Your task to perform on an android device: Open CNN.com Image 0: 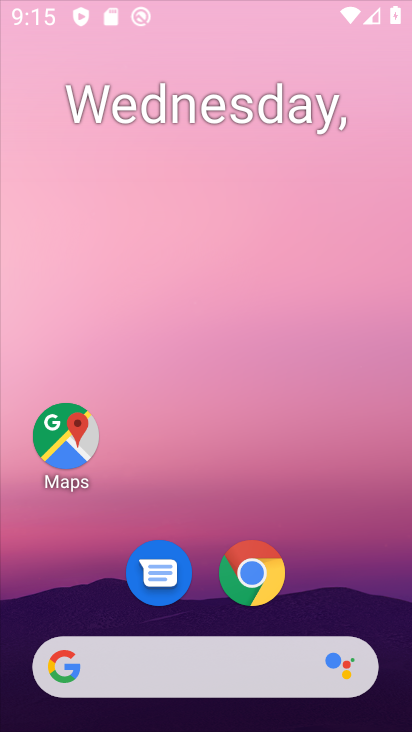
Step 0: click (292, 331)
Your task to perform on an android device: Open CNN.com Image 1: 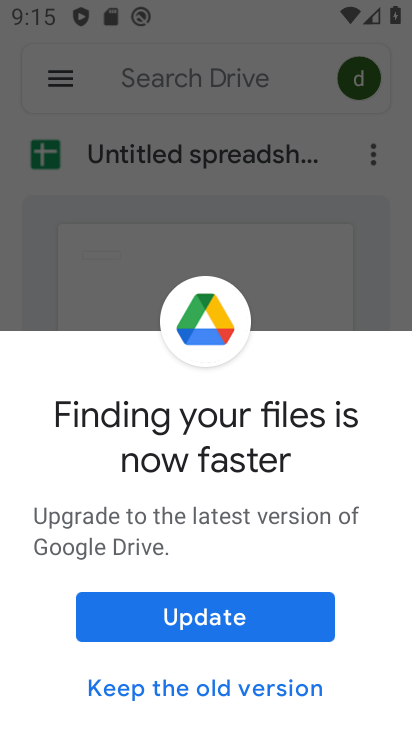
Step 1: press home button
Your task to perform on an android device: Open CNN.com Image 2: 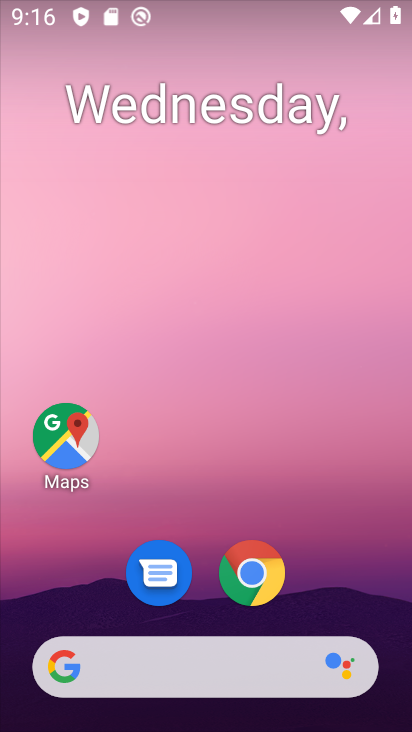
Step 2: click (251, 553)
Your task to perform on an android device: Open CNN.com Image 3: 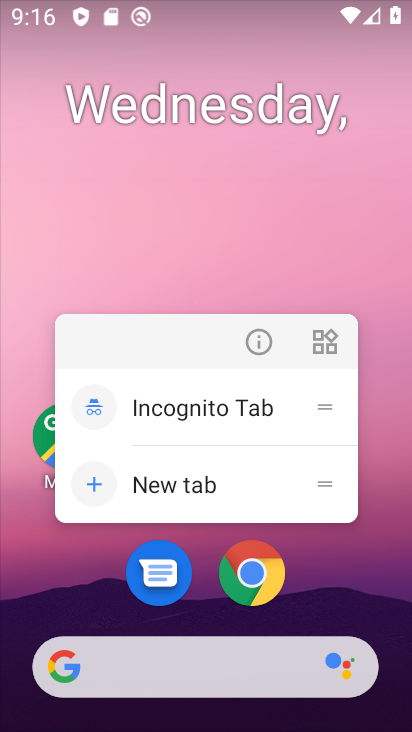
Step 3: click (257, 561)
Your task to perform on an android device: Open CNN.com Image 4: 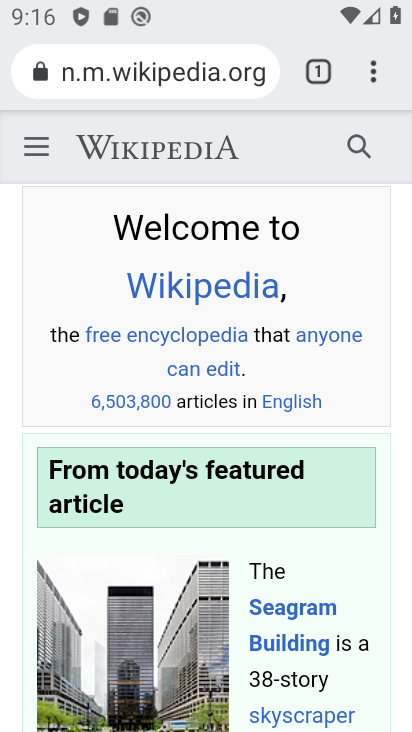
Step 4: click (370, 66)
Your task to perform on an android device: Open CNN.com Image 5: 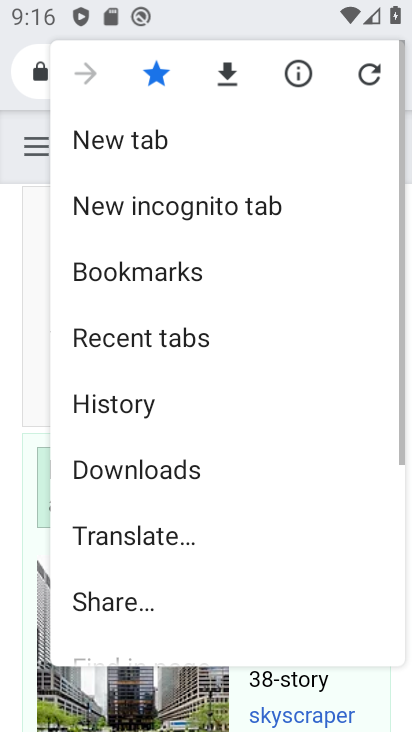
Step 5: click (139, 137)
Your task to perform on an android device: Open CNN.com Image 6: 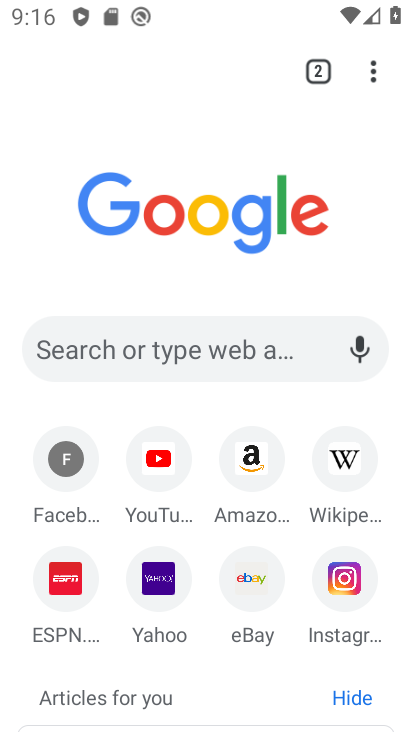
Step 6: click (226, 343)
Your task to perform on an android device: Open CNN.com Image 7: 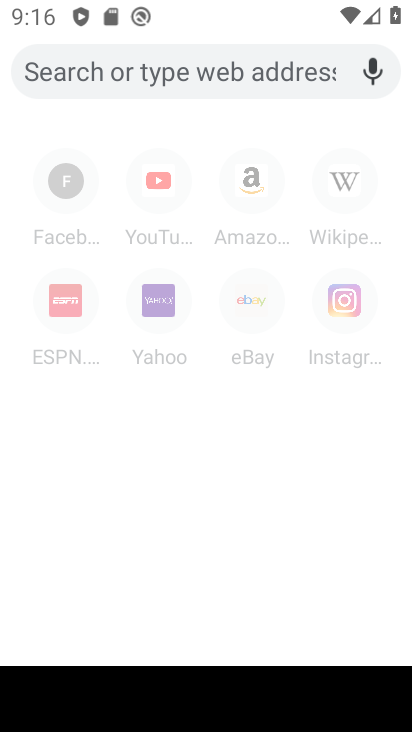
Step 7: type " CNN.com"
Your task to perform on an android device: Open CNN.com Image 8: 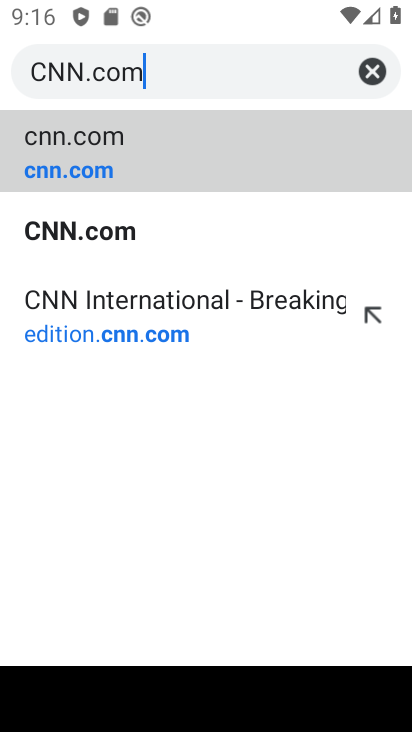
Step 8: click (225, 137)
Your task to perform on an android device: Open CNN.com Image 9: 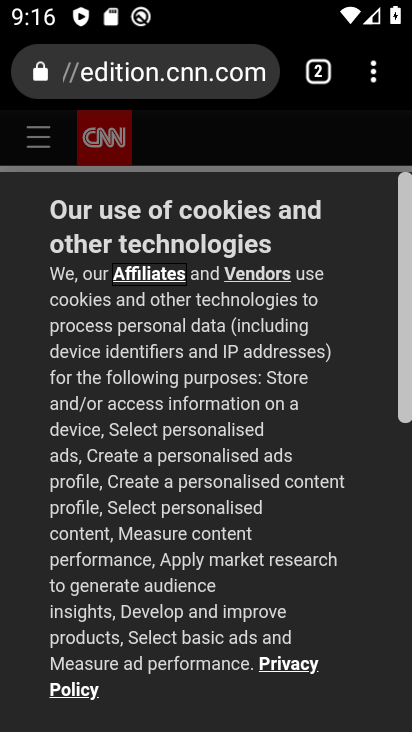
Step 9: task complete